Your task to perform on an android device: turn on translation in the chrome app Image 0: 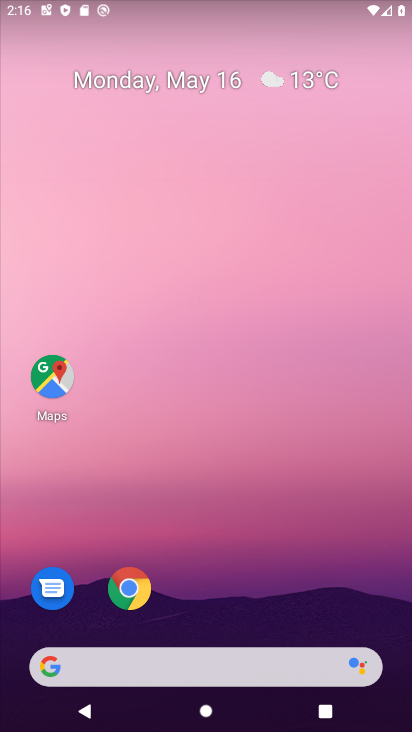
Step 0: drag from (372, 658) to (348, 0)
Your task to perform on an android device: turn on translation in the chrome app Image 1: 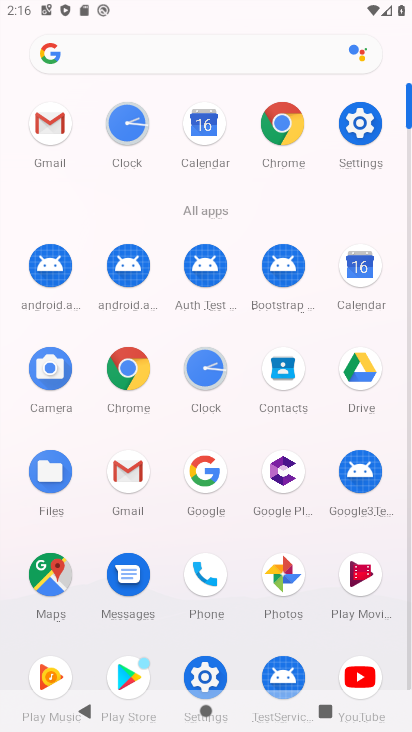
Step 1: click (134, 365)
Your task to perform on an android device: turn on translation in the chrome app Image 2: 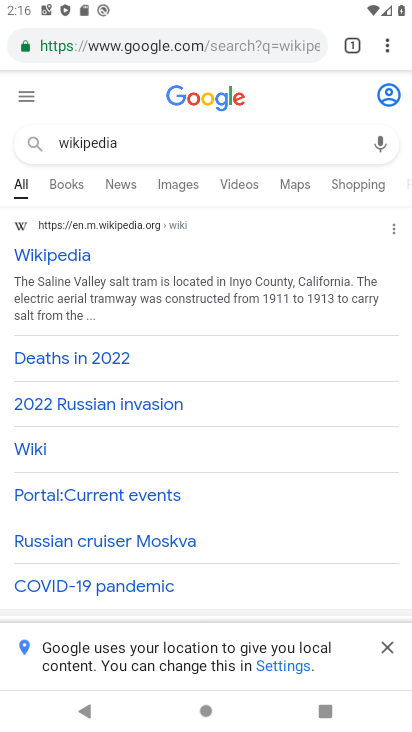
Step 2: click (383, 47)
Your task to perform on an android device: turn on translation in the chrome app Image 3: 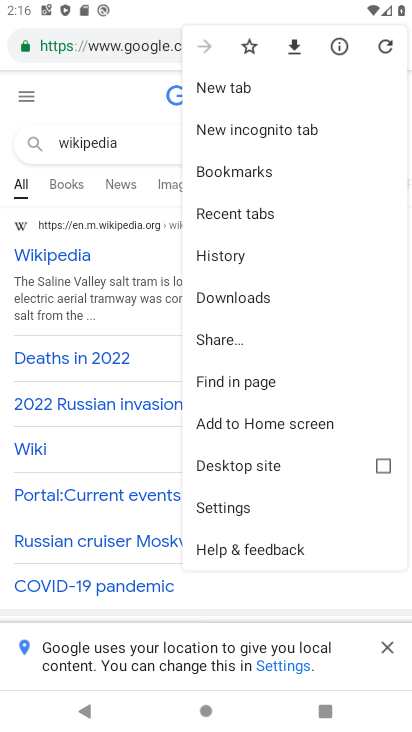
Step 3: click (254, 511)
Your task to perform on an android device: turn on translation in the chrome app Image 4: 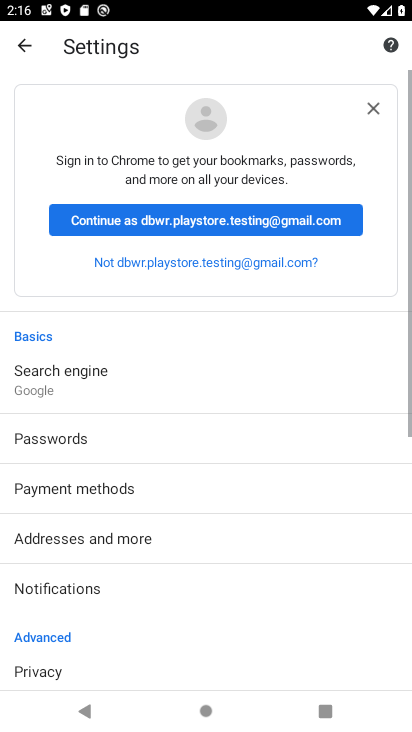
Step 4: drag from (153, 608) to (177, 204)
Your task to perform on an android device: turn on translation in the chrome app Image 5: 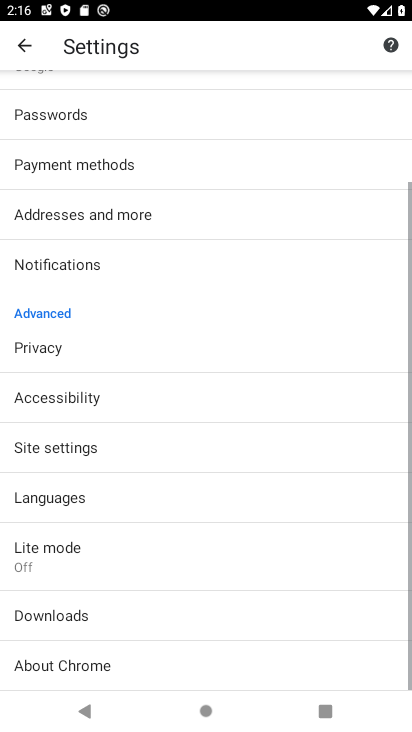
Step 5: click (89, 505)
Your task to perform on an android device: turn on translation in the chrome app Image 6: 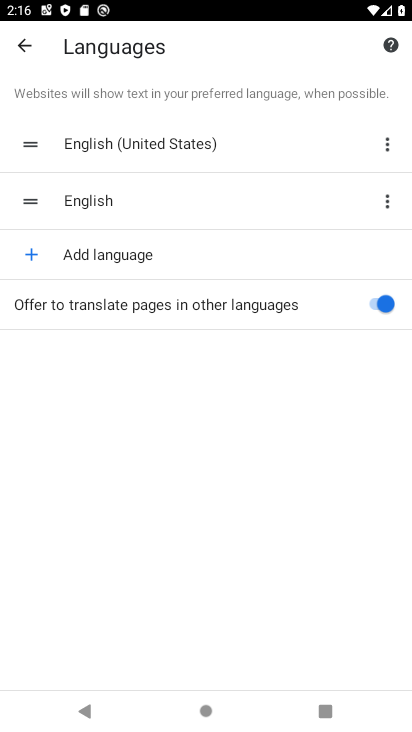
Step 6: press back button
Your task to perform on an android device: turn on translation in the chrome app Image 7: 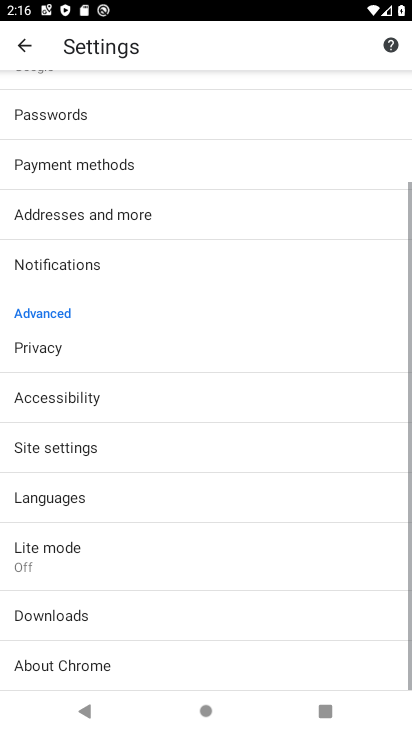
Step 7: click (74, 450)
Your task to perform on an android device: turn on translation in the chrome app Image 8: 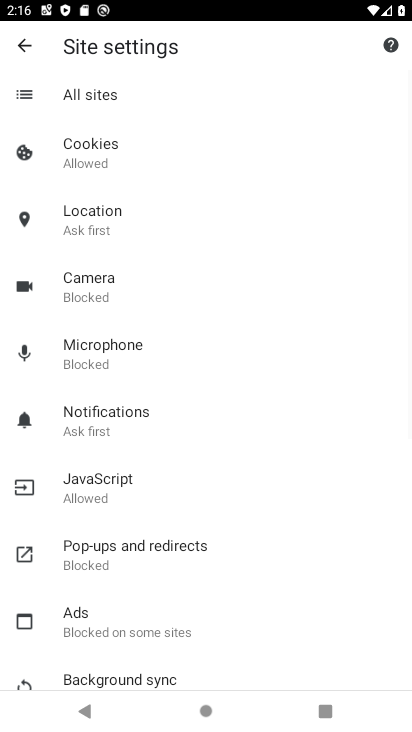
Step 8: drag from (149, 580) to (196, 204)
Your task to perform on an android device: turn on translation in the chrome app Image 9: 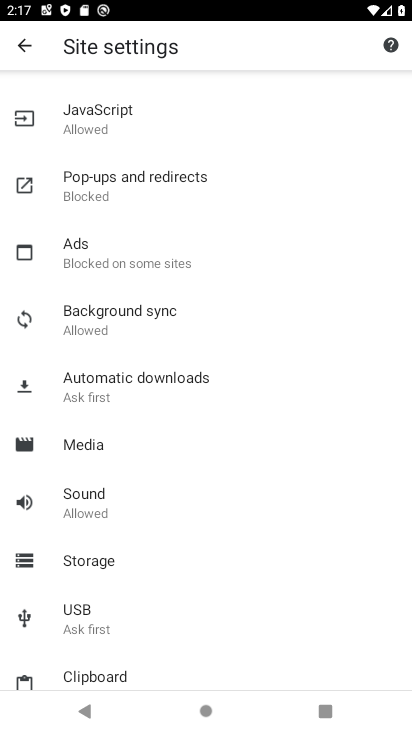
Step 9: drag from (205, 208) to (218, 544)
Your task to perform on an android device: turn on translation in the chrome app Image 10: 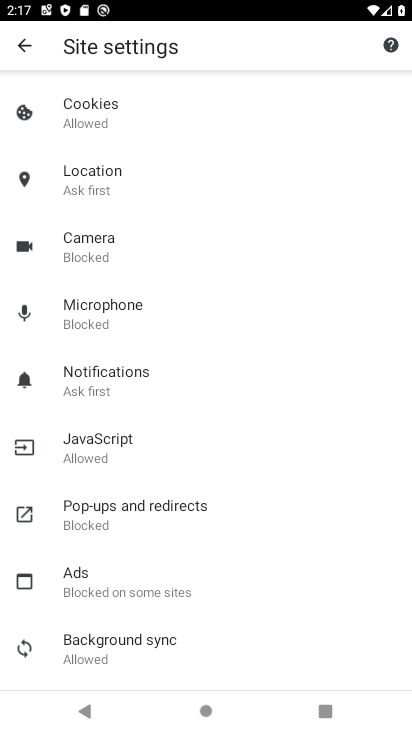
Step 10: press back button
Your task to perform on an android device: turn on translation in the chrome app Image 11: 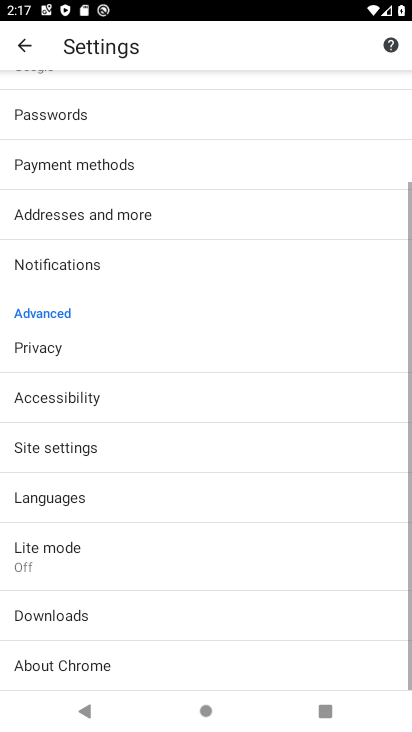
Step 11: drag from (157, 604) to (167, 363)
Your task to perform on an android device: turn on translation in the chrome app Image 12: 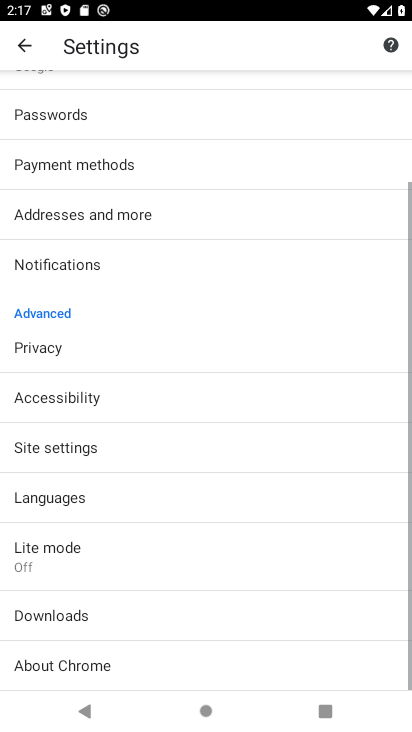
Step 12: click (103, 547)
Your task to perform on an android device: turn on translation in the chrome app Image 13: 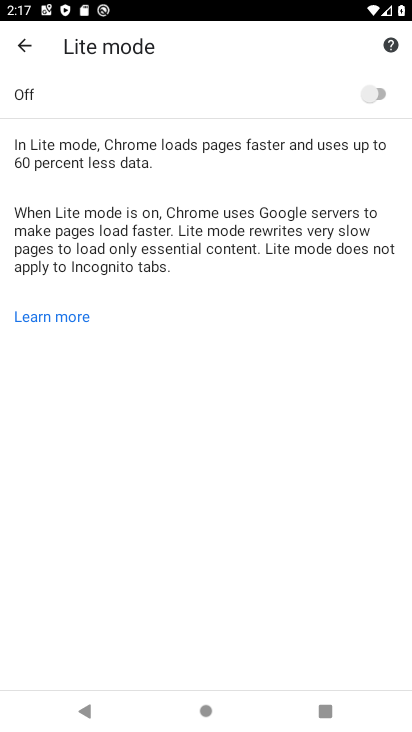
Step 13: press back button
Your task to perform on an android device: turn on translation in the chrome app Image 14: 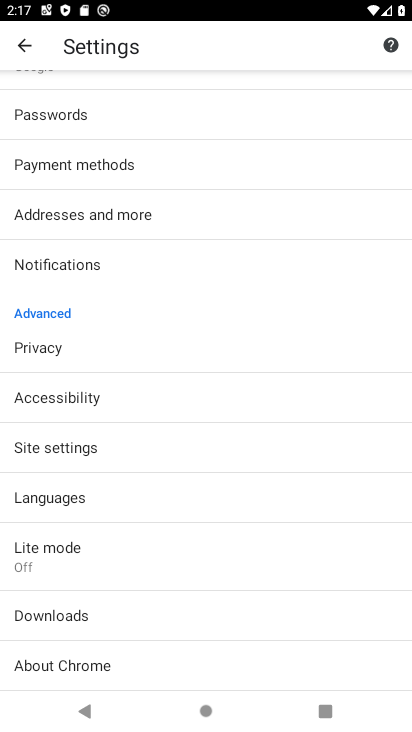
Step 14: click (100, 505)
Your task to perform on an android device: turn on translation in the chrome app Image 15: 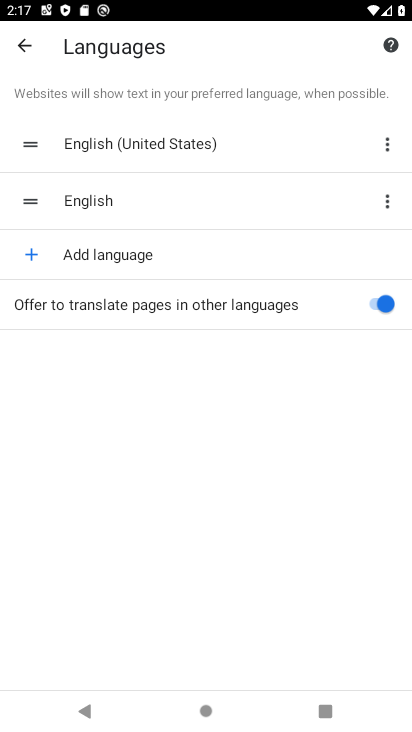
Step 15: task complete